Your task to perform on an android device: find which apps use the phone's location Image 0: 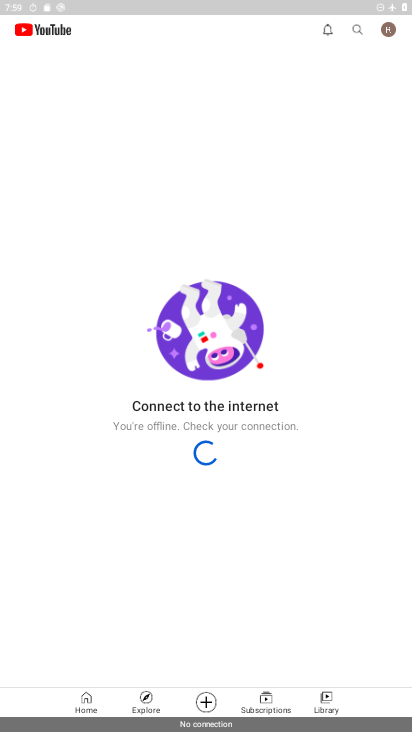
Step 0: drag from (359, 655) to (268, 69)
Your task to perform on an android device: find which apps use the phone's location Image 1: 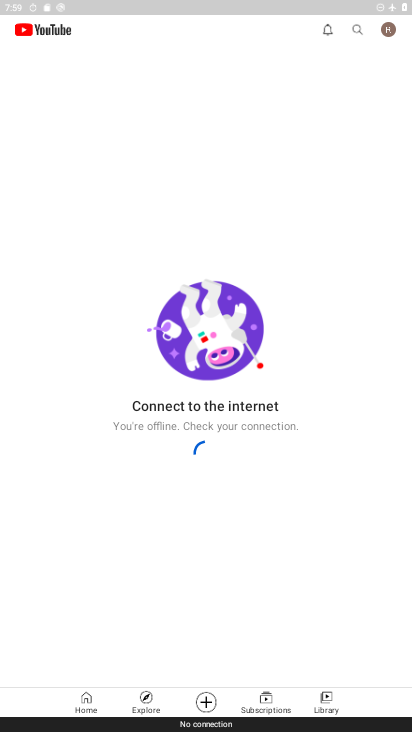
Step 1: press home button
Your task to perform on an android device: find which apps use the phone's location Image 2: 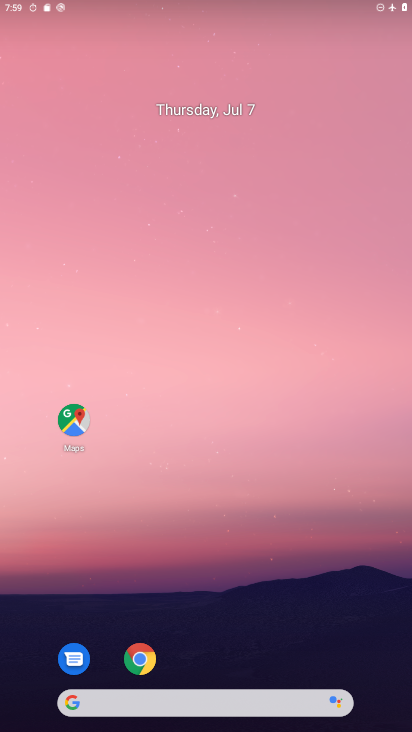
Step 2: drag from (367, 615) to (301, 120)
Your task to perform on an android device: find which apps use the phone's location Image 3: 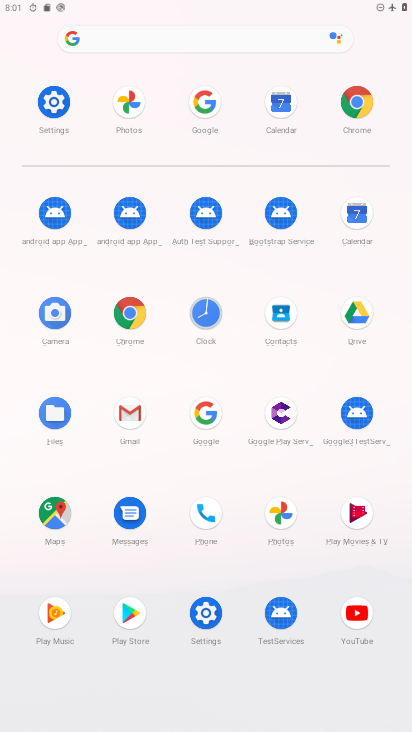
Step 3: click (208, 614)
Your task to perform on an android device: find which apps use the phone's location Image 4: 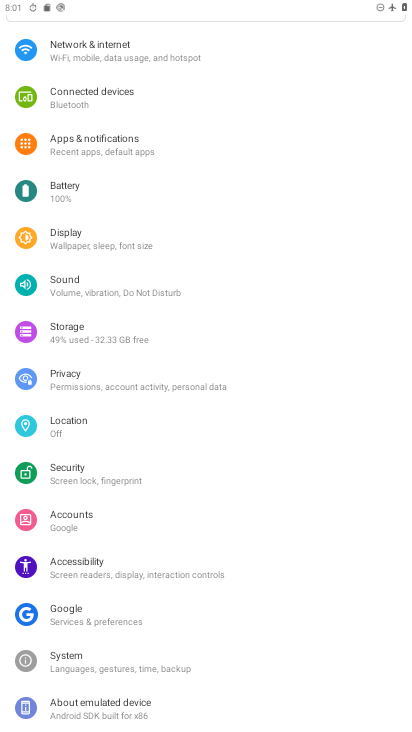
Step 4: click (97, 430)
Your task to perform on an android device: find which apps use the phone's location Image 5: 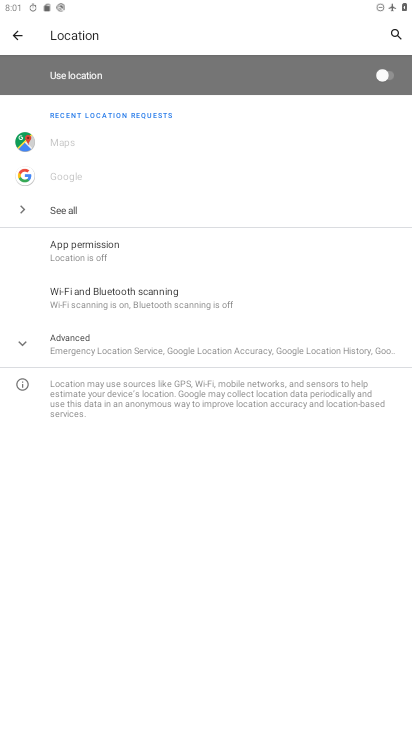
Step 5: click (73, 250)
Your task to perform on an android device: find which apps use the phone's location Image 6: 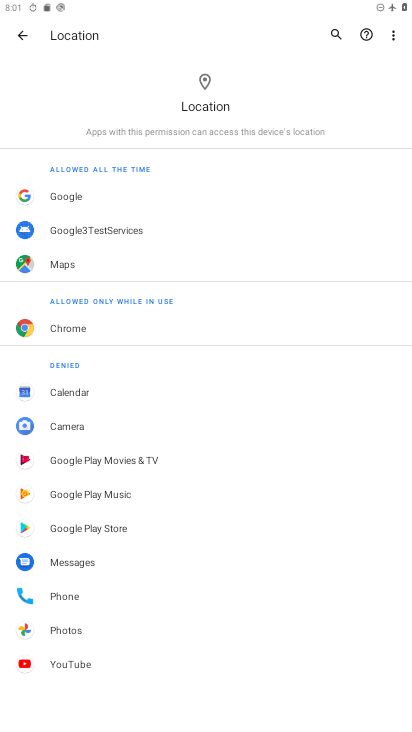
Step 6: click (53, 600)
Your task to perform on an android device: find which apps use the phone's location Image 7: 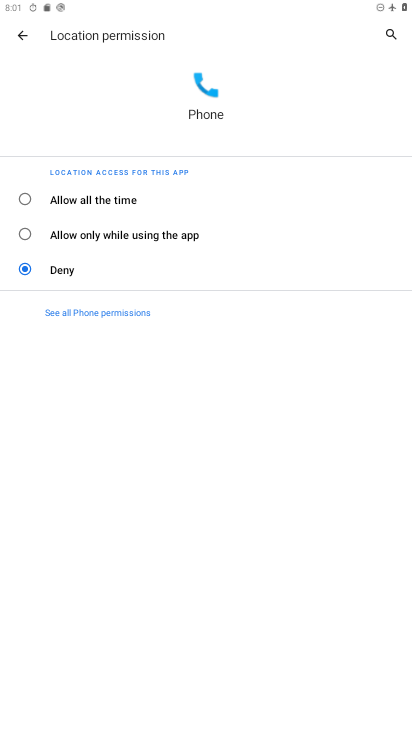
Step 7: click (40, 205)
Your task to perform on an android device: find which apps use the phone's location Image 8: 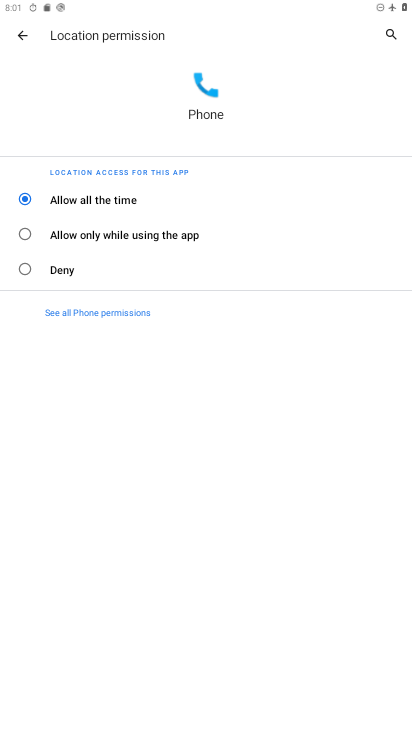
Step 8: task complete